Your task to perform on an android device: choose inbox layout in the gmail app Image 0: 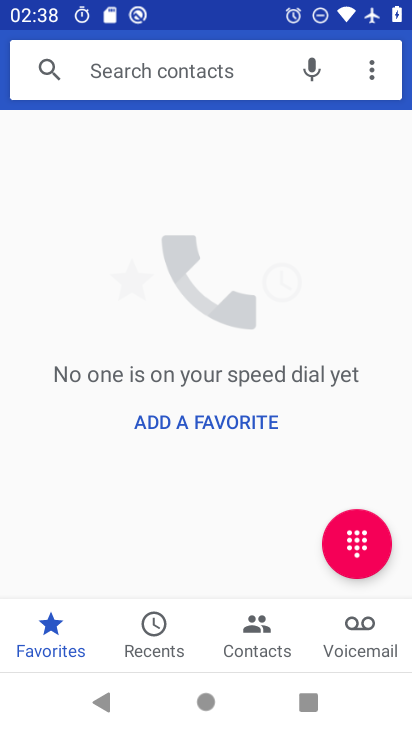
Step 0: press home button
Your task to perform on an android device: choose inbox layout in the gmail app Image 1: 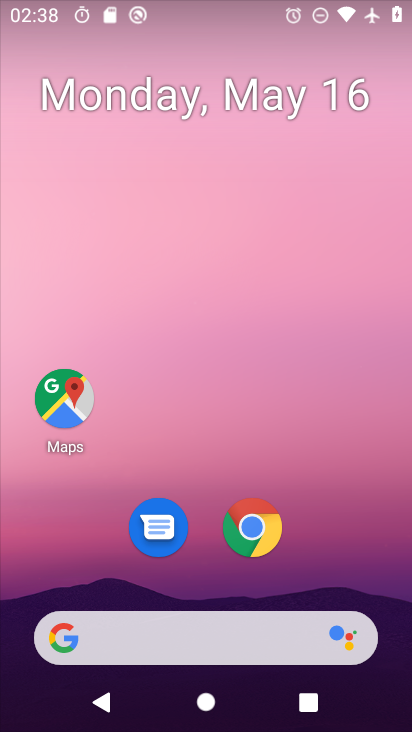
Step 1: drag from (166, 621) to (298, 245)
Your task to perform on an android device: choose inbox layout in the gmail app Image 2: 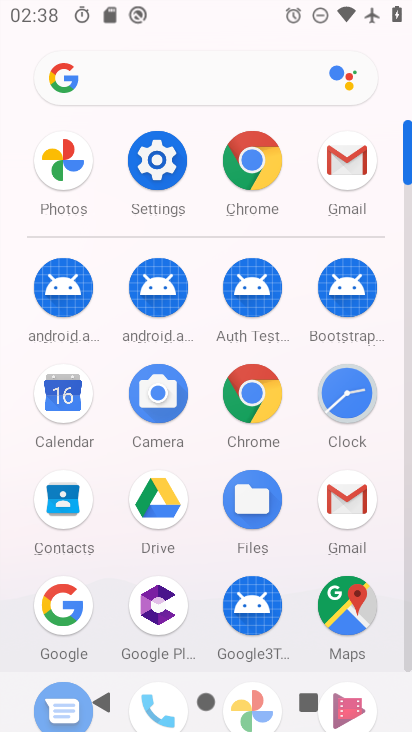
Step 2: click (358, 178)
Your task to perform on an android device: choose inbox layout in the gmail app Image 3: 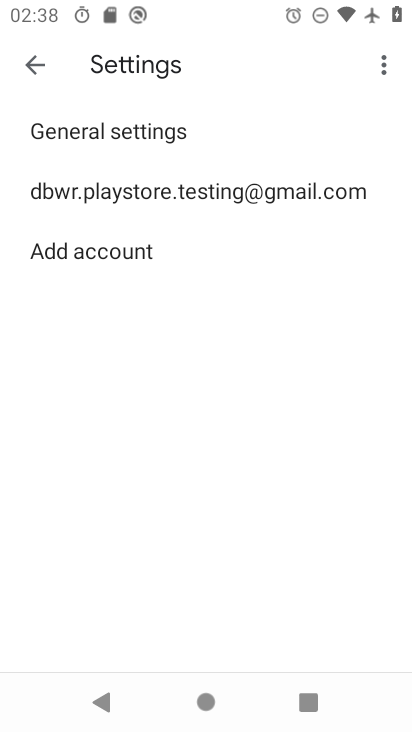
Step 3: click (297, 200)
Your task to perform on an android device: choose inbox layout in the gmail app Image 4: 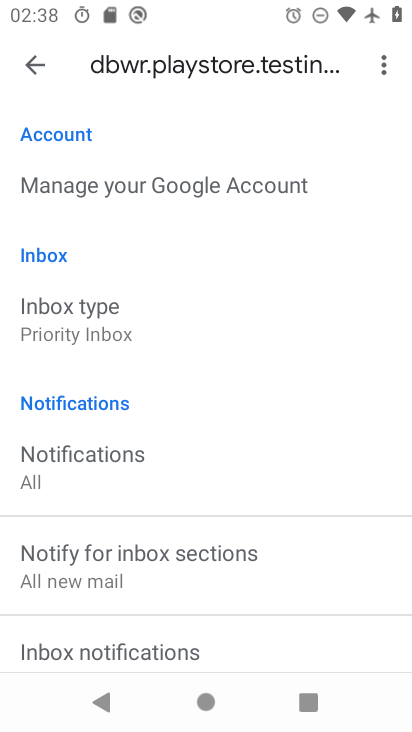
Step 4: click (66, 317)
Your task to perform on an android device: choose inbox layout in the gmail app Image 5: 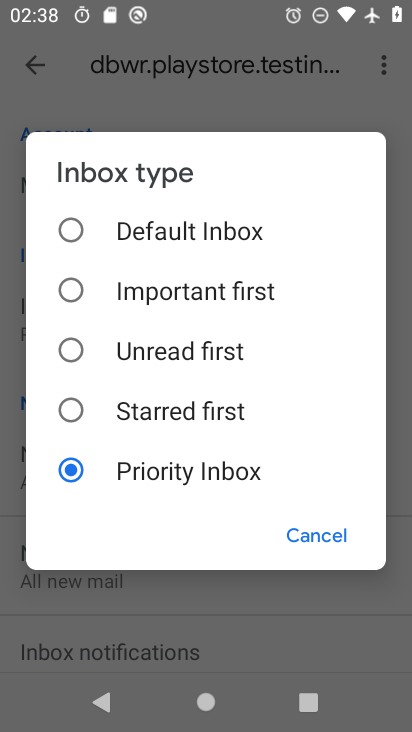
Step 5: click (65, 235)
Your task to perform on an android device: choose inbox layout in the gmail app Image 6: 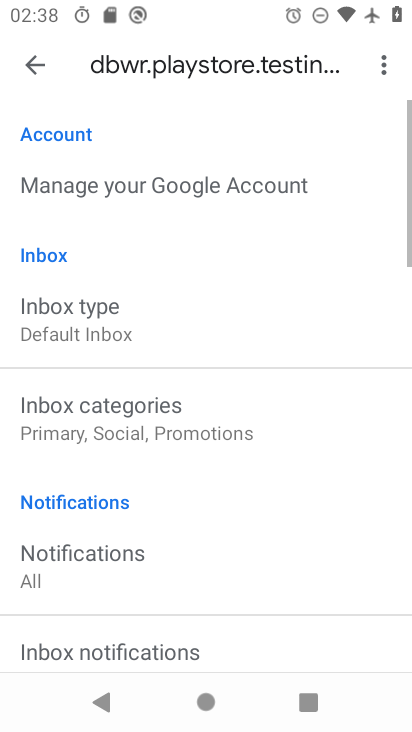
Step 6: task complete